Your task to perform on an android device: toggle priority inbox in the gmail app Image 0: 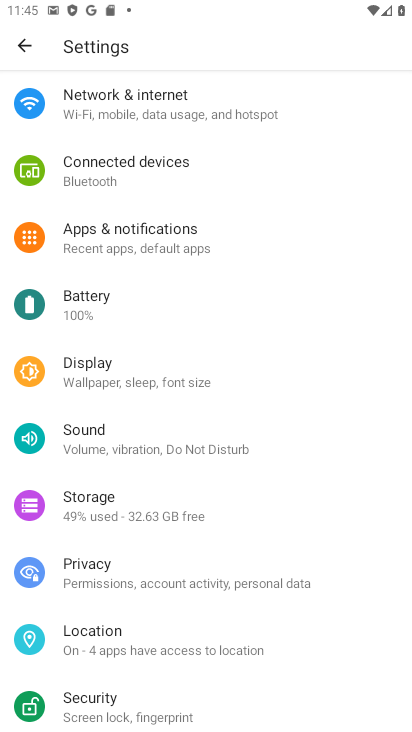
Step 0: press home button
Your task to perform on an android device: toggle priority inbox in the gmail app Image 1: 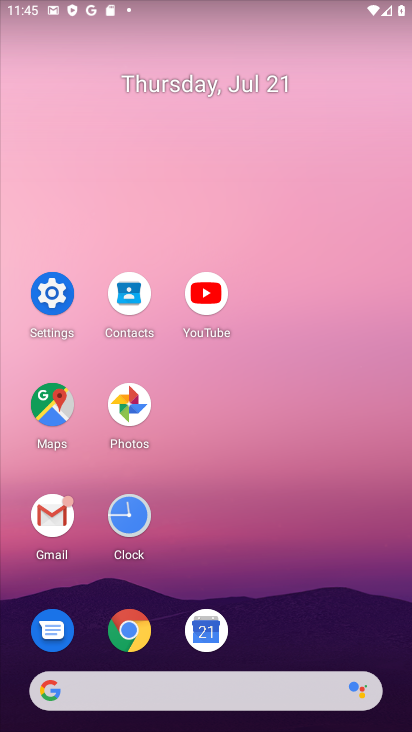
Step 1: click (51, 512)
Your task to perform on an android device: toggle priority inbox in the gmail app Image 2: 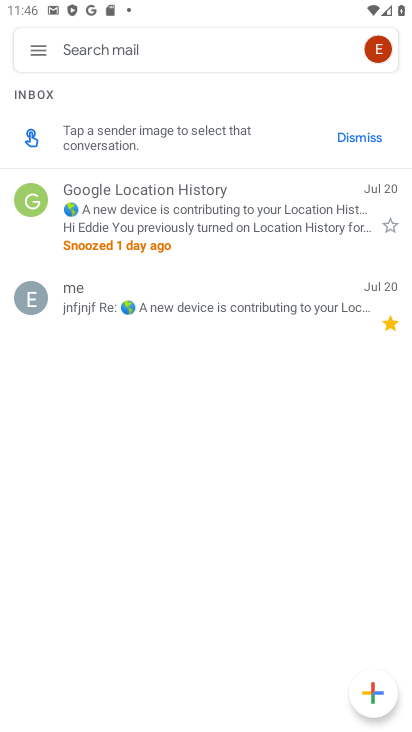
Step 2: click (36, 48)
Your task to perform on an android device: toggle priority inbox in the gmail app Image 3: 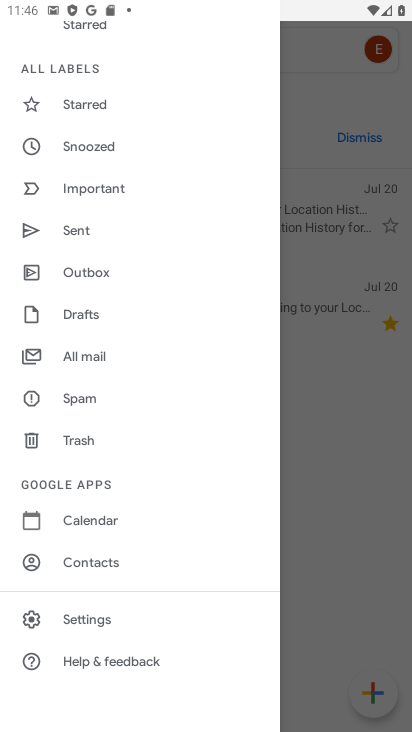
Step 3: click (100, 621)
Your task to perform on an android device: toggle priority inbox in the gmail app Image 4: 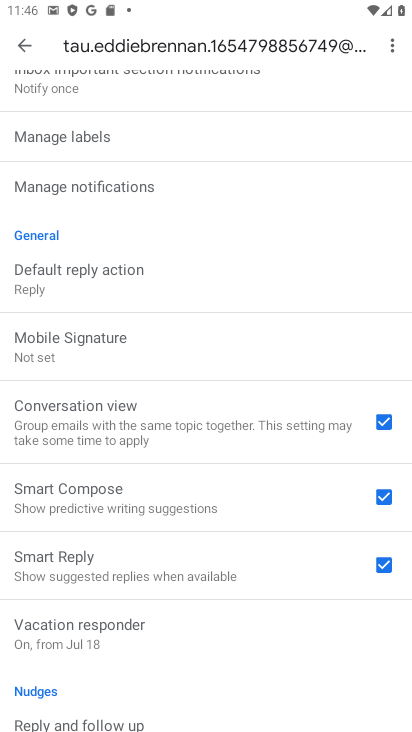
Step 4: drag from (201, 233) to (208, 602)
Your task to perform on an android device: toggle priority inbox in the gmail app Image 5: 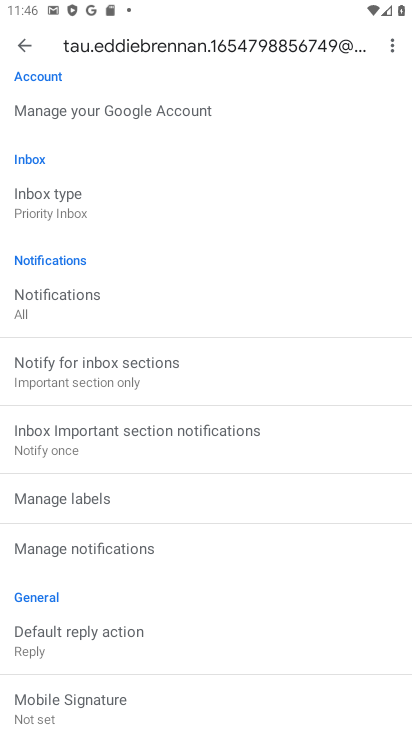
Step 5: click (54, 201)
Your task to perform on an android device: toggle priority inbox in the gmail app Image 6: 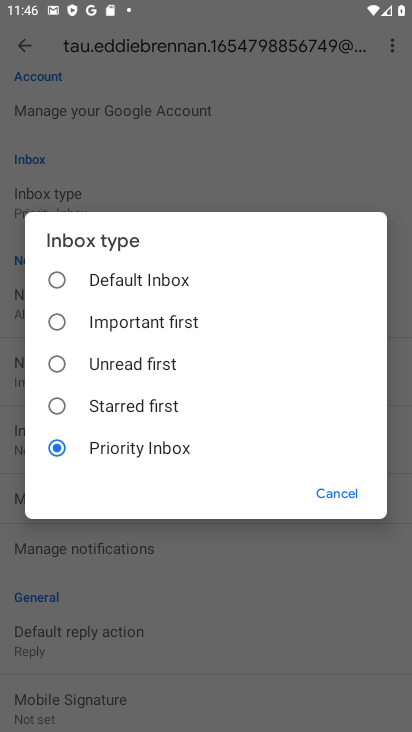
Step 6: click (52, 277)
Your task to perform on an android device: toggle priority inbox in the gmail app Image 7: 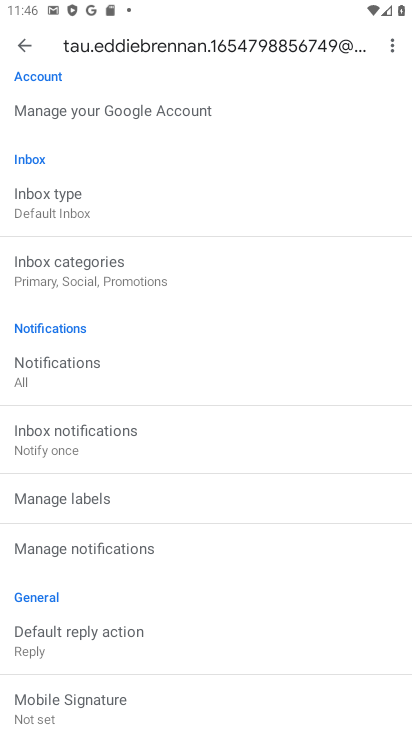
Step 7: task complete